Your task to perform on an android device: turn notification dots off Image 0: 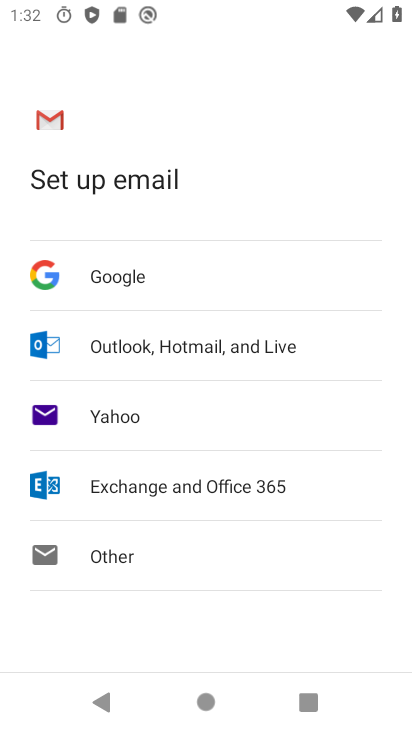
Step 0: press home button
Your task to perform on an android device: turn notification dots off Image 1: 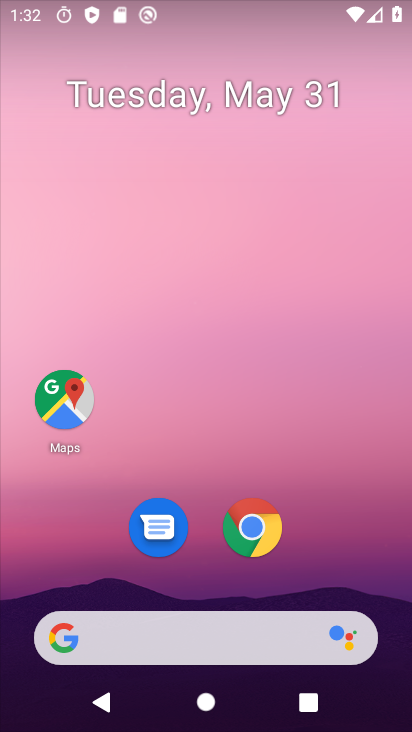
Step 1: drag from (139, 725) to (175, 23)
Your task to perform on an android device: turn notification dots off Image 2: 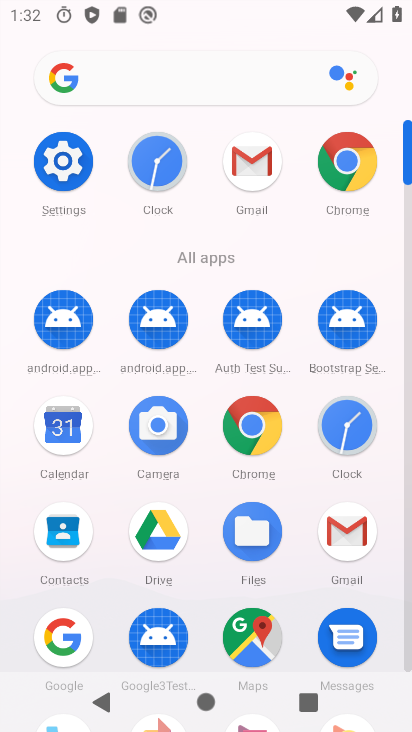
Step 2: click (48, 174)
Your task to perform on an android device: turn notification dots off Image 3: 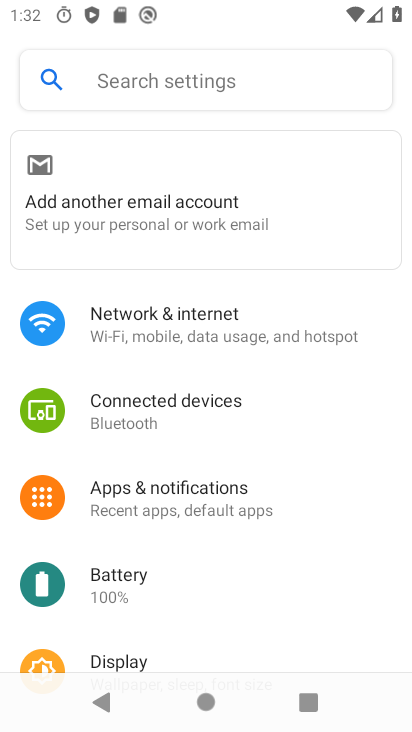
Step 3: click (217, 499)
Your task to perform on an android device: turn notification dots off Image 4: 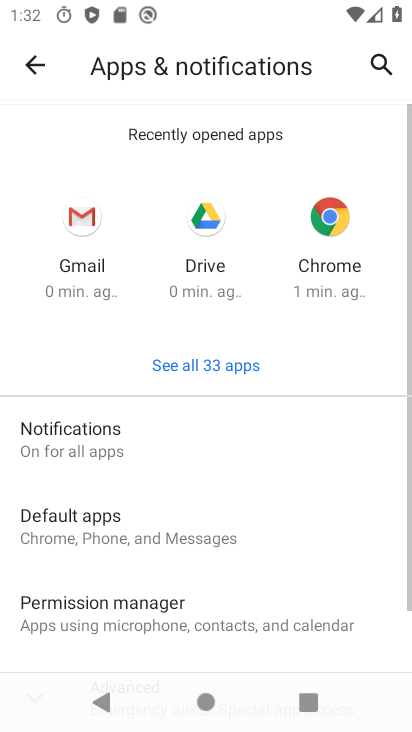
Step 4: click (172, 451)
Your task to perform on an android device: turn notification dots off Image 5: 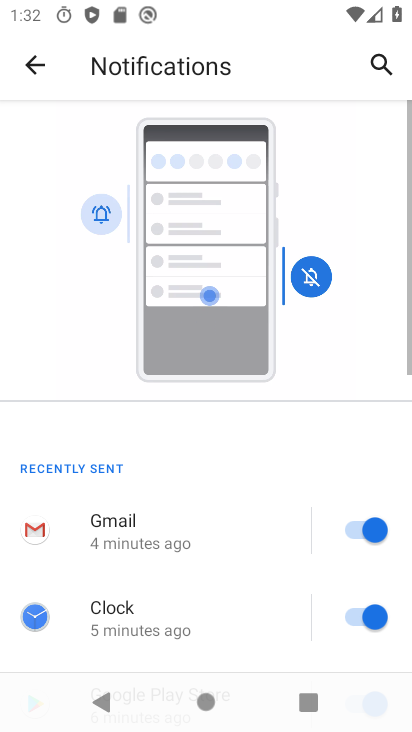
Step 5: drag from (268, 594) to (289, 155)
Your task to perform on an android device: turn notification dots off Image 6: 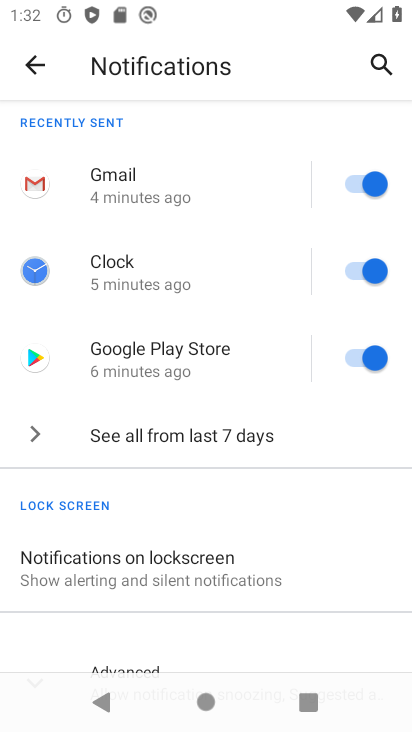
Step 6: drag from (226, 629) to (234, 214)
Your task to perform on an android device: turn notification dots off Image 7: 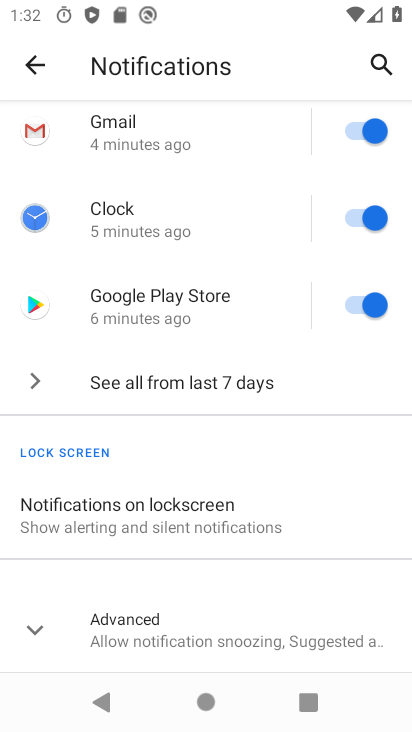
Step 7: click (228, 641)
Your task to perform on an android device: turn notification dots off Image 8: 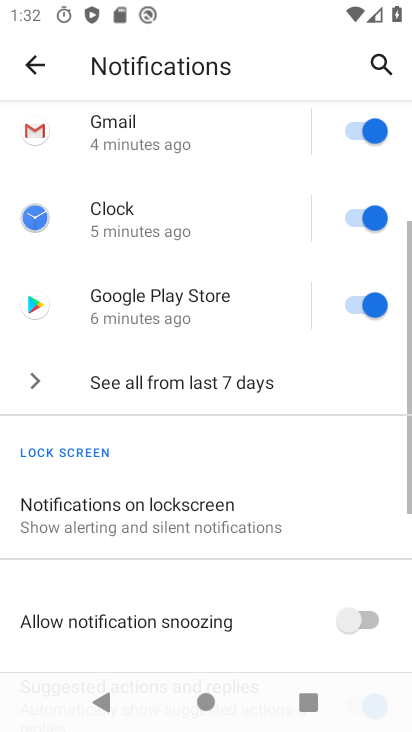
Step 8: drag from (237, 634) to (191, 294)
Your task to perform on an android device: turn notification dots off Image 9: 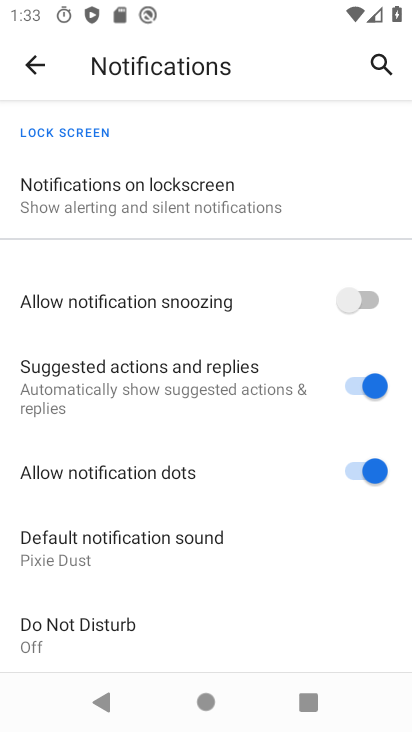
Step 9: click (375, 470)
Your task to perform on an android device: turn notification dots off Image 10: 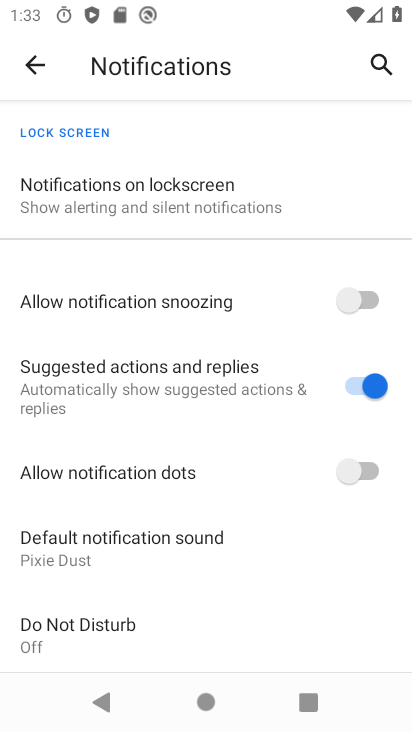
Step 10: task complete